Your task to perform on an android device: change the clock display to analog Image 0: 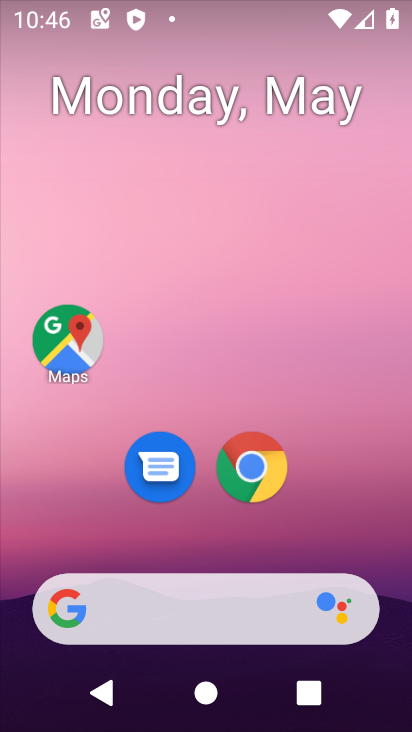
Step 0: drag from (379, 639) to (358, 166)
Your task to perform on an android device: change the clock display to analog Image 1: 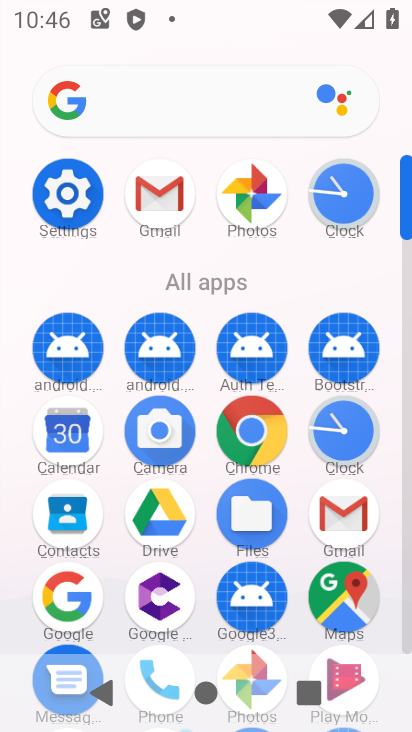
Step 1: click (328, 437)
Your task to perform on an android device: change the clock display to analog Image 2: 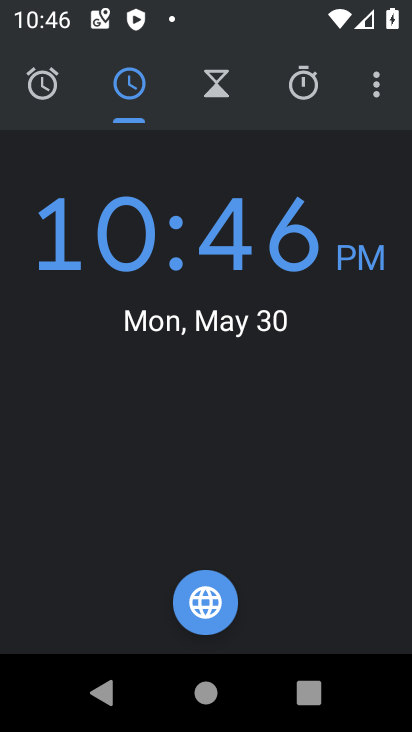
Step 2: click (377, 88)
Your task to perform on an android device: change the clock display to analog Image 3: 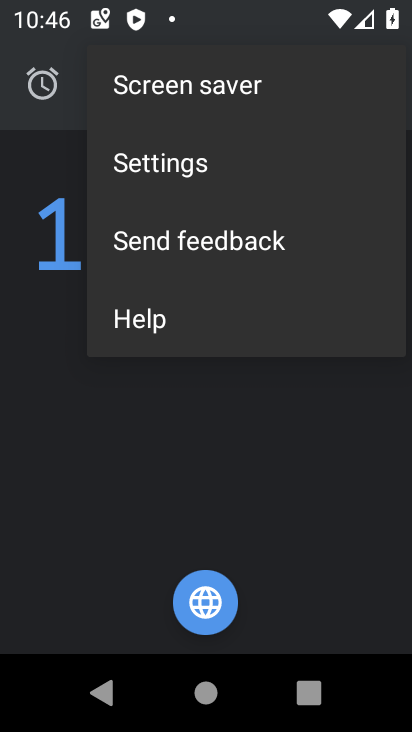
Step 3: click (189, 149)
Your task to perform on an android device: change the clock display to analog Image 4: 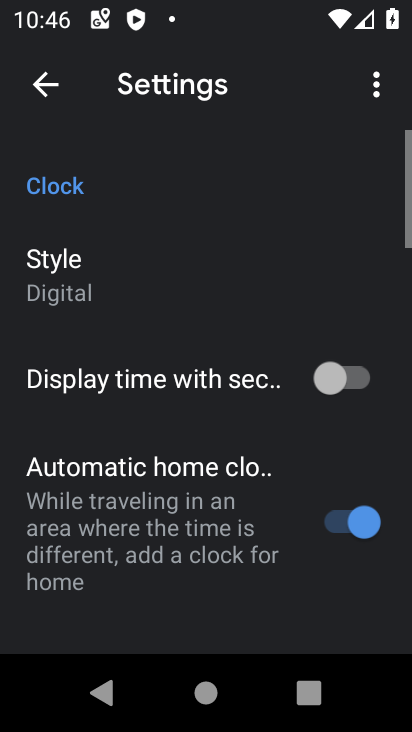
Step 4: click (57, 279)
Your task to perform on an android device: change the clock display to analog Image 5: 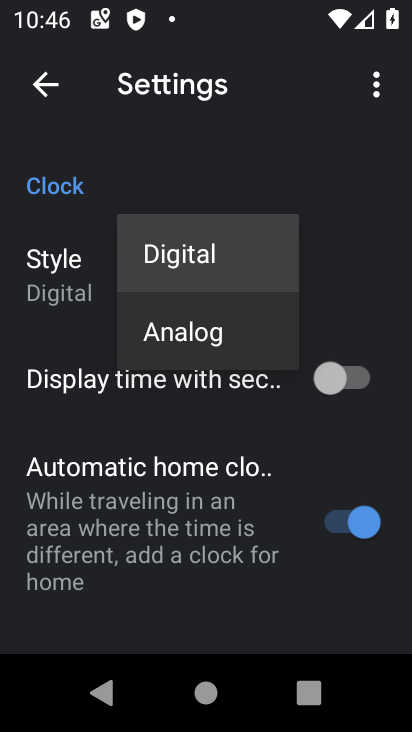
Step 5: click (161, 326)
Your task to perform on an android device: change the clock display to analog Image 6: 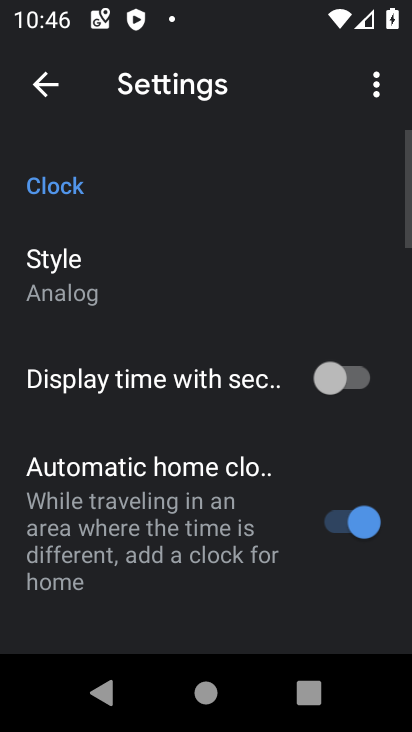
Step 6: task complete